Your task to perform on an android device: toggle show notifications on the lock screen Image 0: 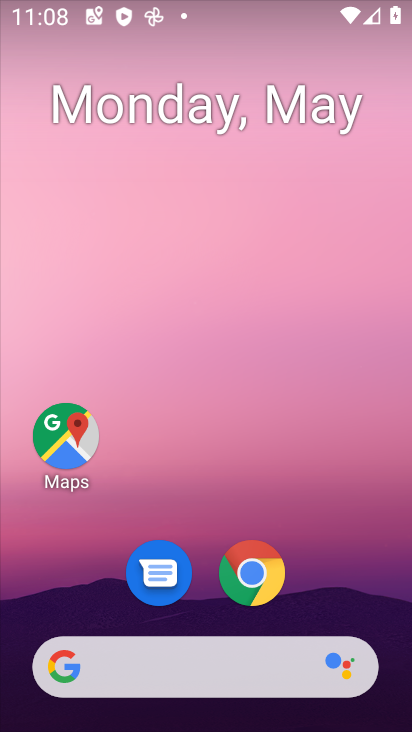
Step 0: drag from (364, 570) to (297, 90)
Your task to perform on an android device: toggle show notifications on the lock screen Image 1: 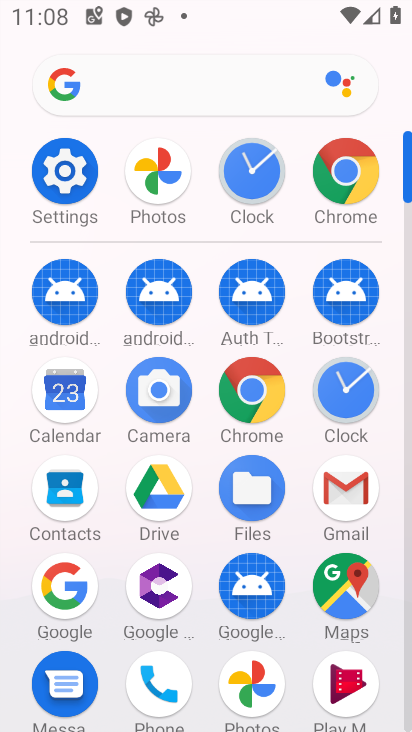
Step 1: click (85, 199)
Your task to perform on an android device: toggle show notifications on the lock screen Image 2: 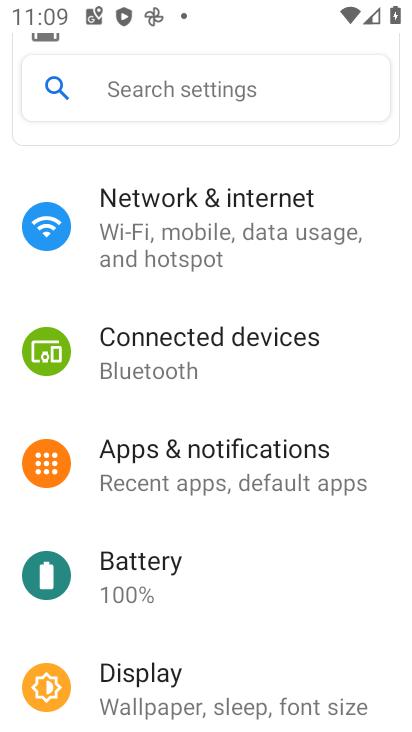
Step 2: click (210, 482)
Your task to perform on an android device: toggle show notifications on the lock screen Image 3: 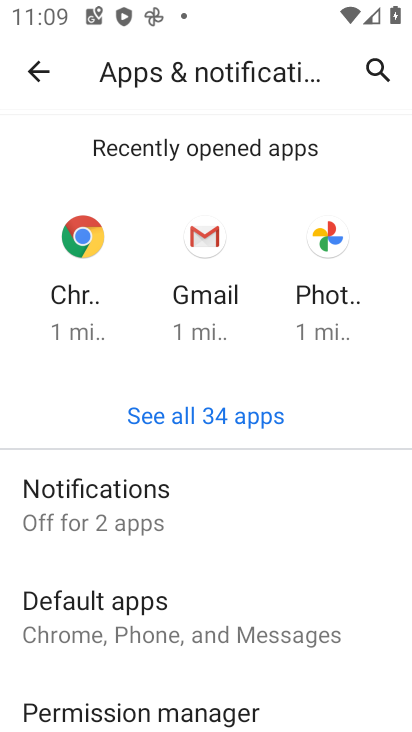
Step 3: drag from (280, 655) to (252, 311)
Your task to perform on an android device: toggle show notifications on the lock screen Image 4: 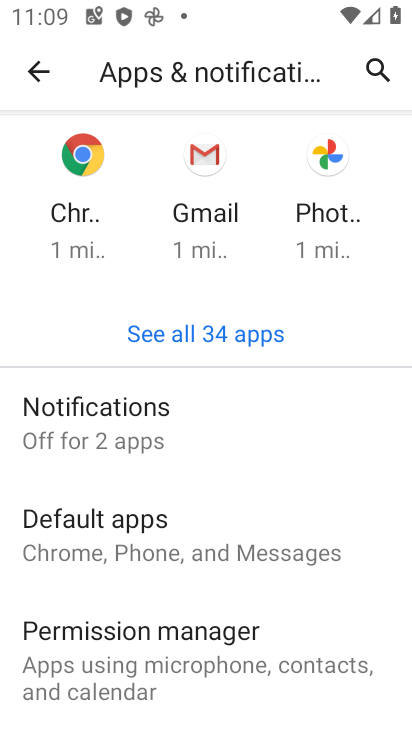
Step 4: drag from (156, 601) to (168, 170)
Your task to perform on an android device: toggle show notifications on the lock screen Image 5: 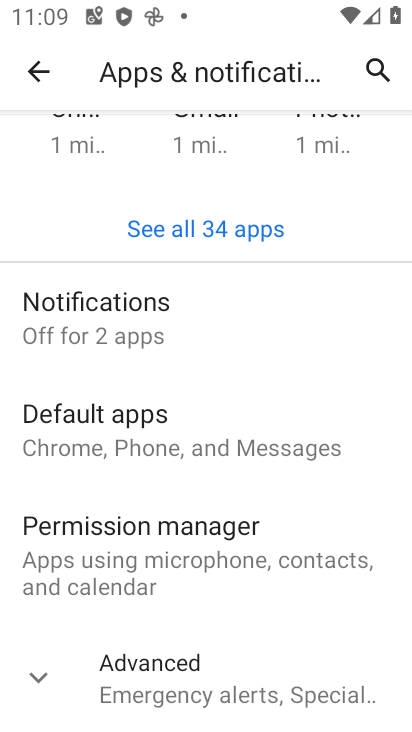
Step 5: click (145, 664)
Your task to perform on an android device: toggle show notifications on the lock screen Image 6: 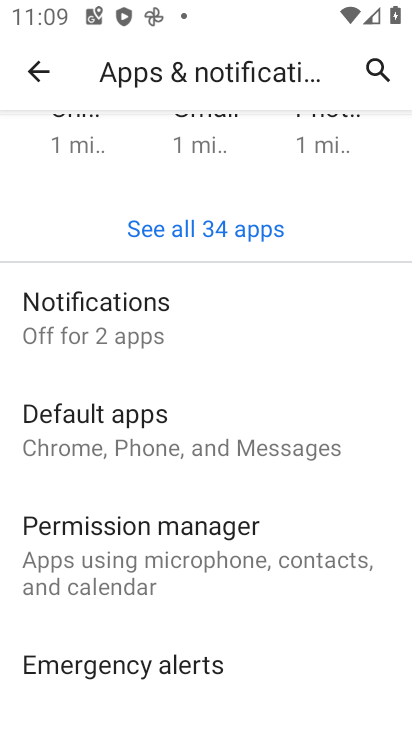
Step 6: click (103, 347)
Your task to perform on an android device: toggle show notifications on the lock screen Image 7: 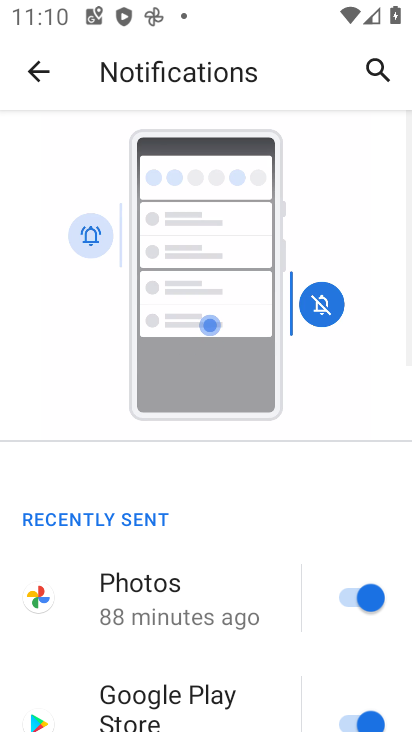
Step 7: drag from (235, 677) to (290, 125)
Your task to perform on an android device: toggle show notifications on the lock screen Image 8: 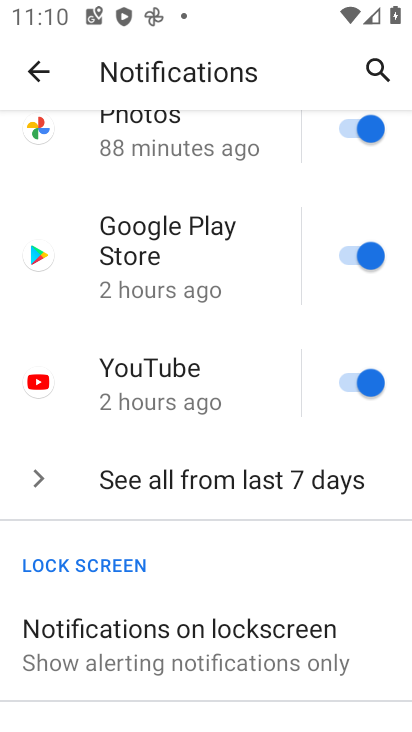
Step 8: click (243, 637)
Your task to perform on an android device: toggle show notifications on the lock screen Image 9: 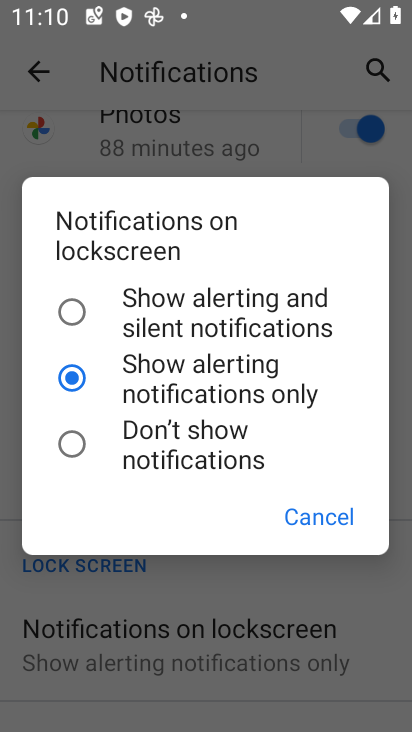
Step 9: click (224, 428)
Your task to perform on an android device: toggle show notifications on the lock screen Image 10: 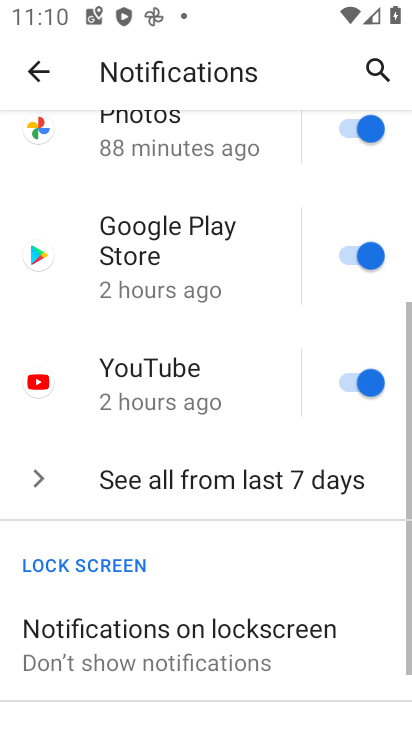
Step 10: task complete